Your task to perform on an android device: Go to battery settings Image 0: 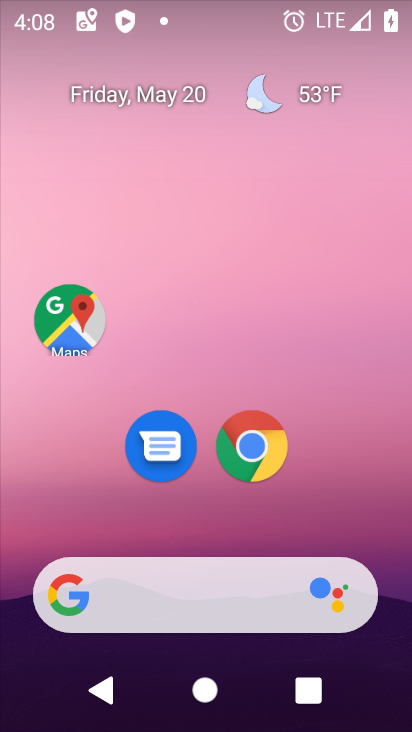
Step 0: drag from (386, 499) to (359, 117)
Your task to perform on an android device: Go to battery settings Image 1: 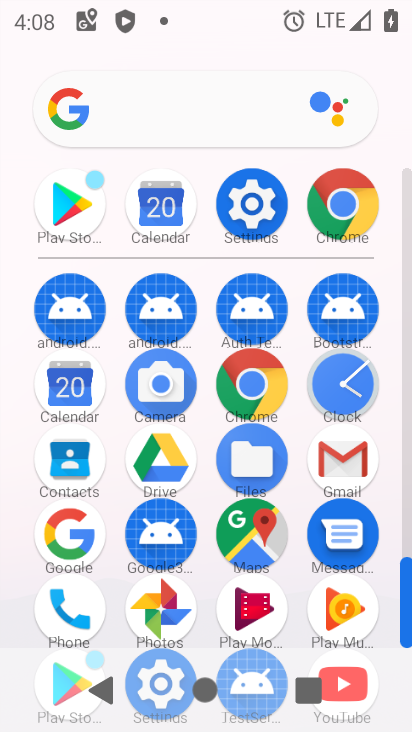
Step 1: click (272, 204)
Your task to perform on an android device: Go to battery settings Image 2: 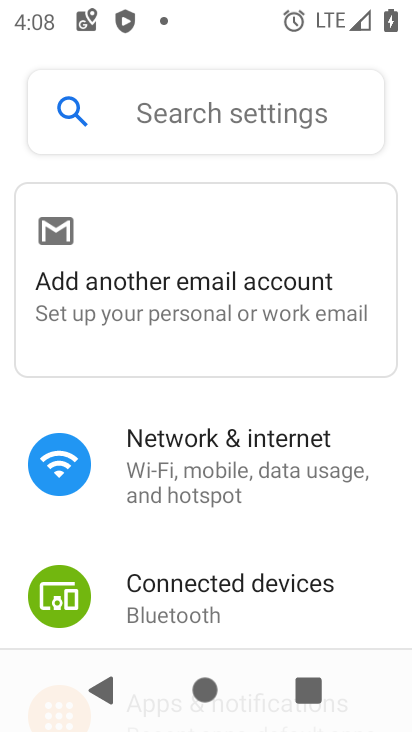
Step 2: drag from (225, 478) to (262, 183)
Your task to perform on an android device: Go to battery settings Image 3: 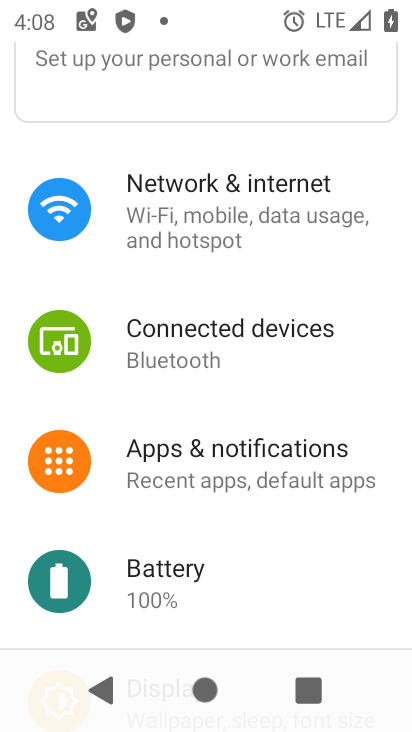
Step 3: click (193, 580)
Your task to perform on an android device: Go to battery settings Image 4: 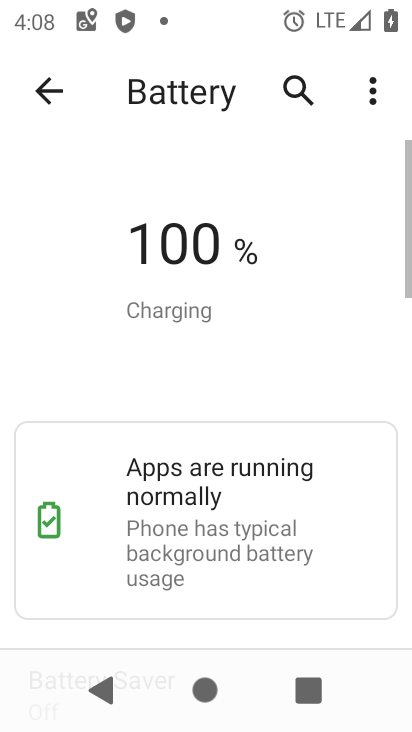
Step 4: drag from (193, 579) to (286, 259)
Your task to perform on an android device: Go to battery settings Image 5: 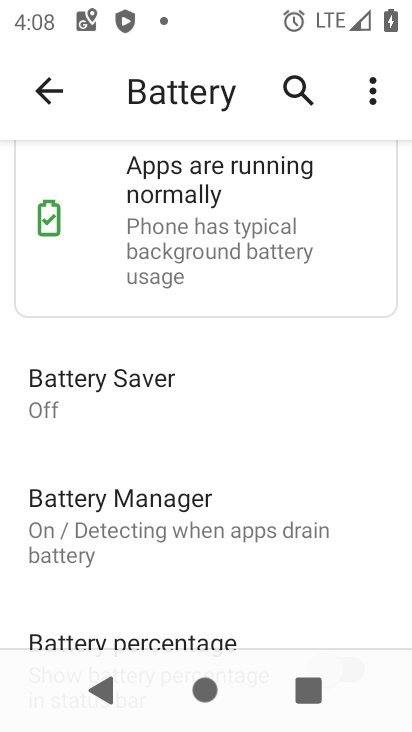
Step 5: drag from (186, 640) to (231, 206)
Your task to perform on an android device: Go to battery settings Image 6: 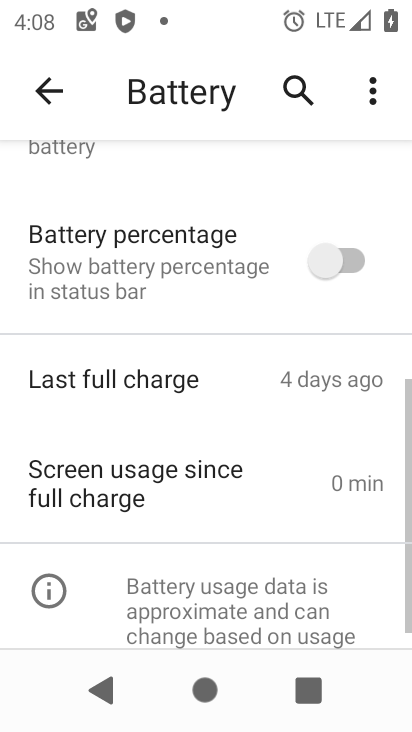
Step 6: drag from (231, 211) to (179, 642)
Your task to perform on an android device: Go to battery settings Image 7: 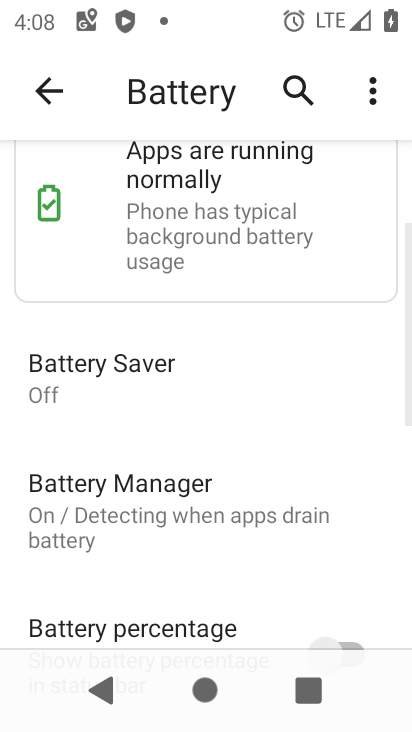
Step 7: click (153, 654)
Your task to perform on an android device: Go to battery settings Image 8: 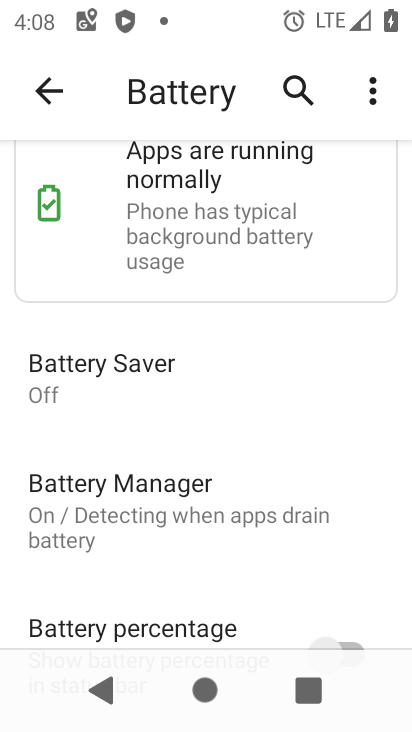
Step 8: task complete